Your task to perform on an android device: turn off notifications in google photos Image 0: 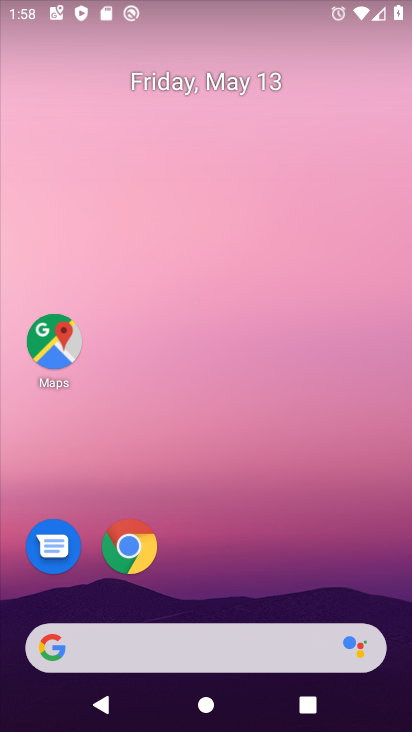
Step 0: drag from (289, 561) to (301, 121)
Your task to perform on an android device: turn off notifications in google photos Image 1: 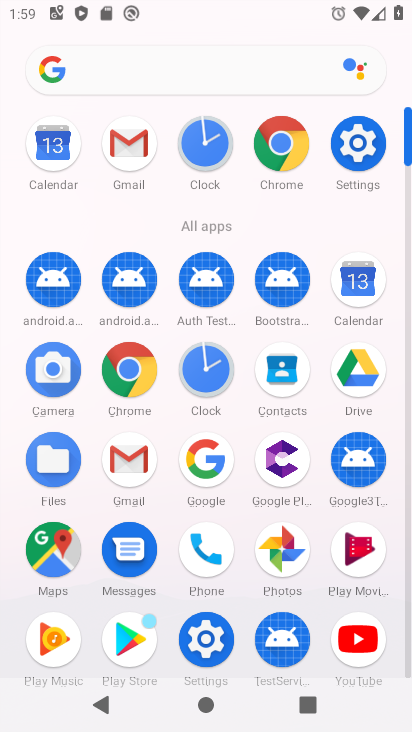
Step 1: click (293, 551)
Your task to perform on an android device: turn off notifications in google photos Image 2: 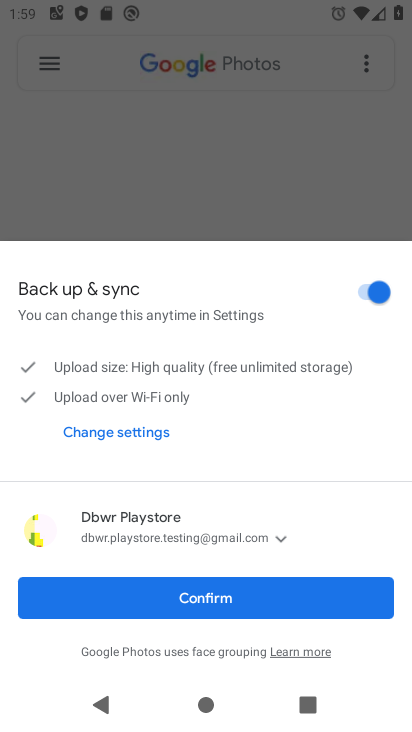
Step 2: click (264, 584)
Your task to perform on an android device: turn off notifications in google photos Image 3: 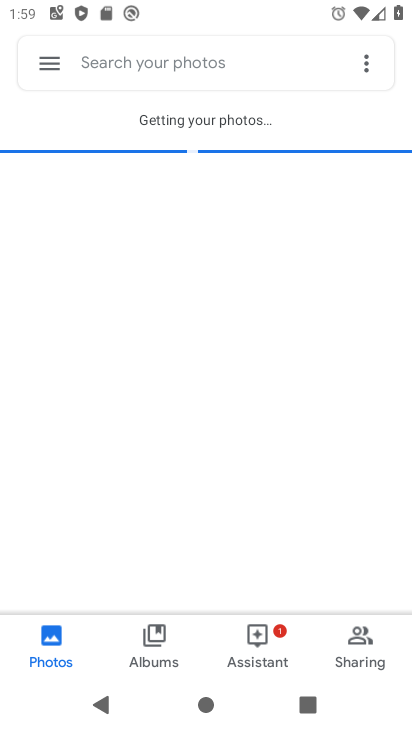
Step 3: click (373, 57)
Your task to perform on an android device: turn off notifications in google photos Image 4: 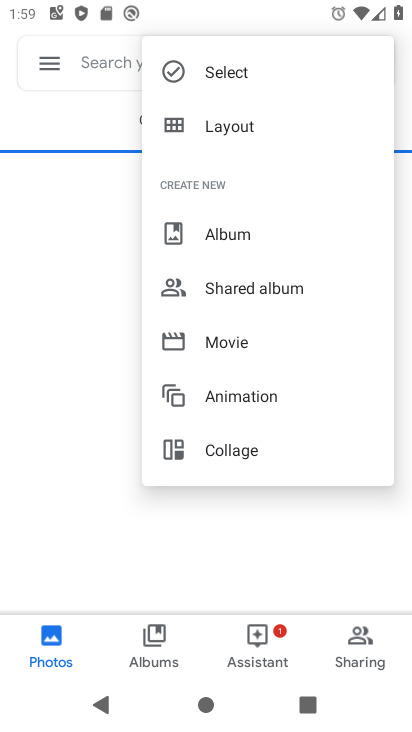
Step 4: click (59, 62)
Your task to perform on an android device: turn off notifications in google photos Image 5: 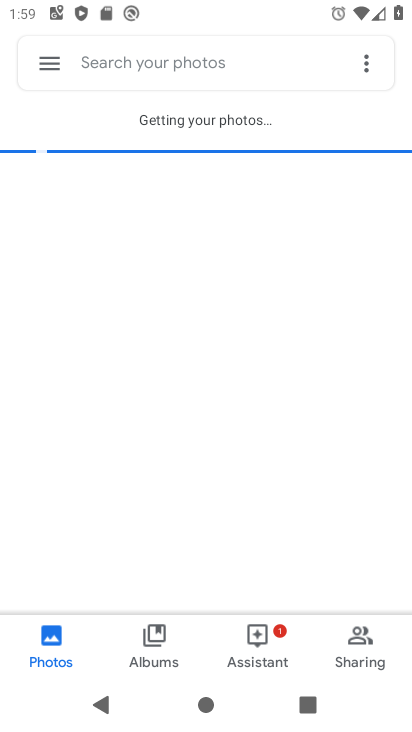
Step 5: click (52, 49)
Your task to perform on an android device: turn off notifications in google photos Image 6: 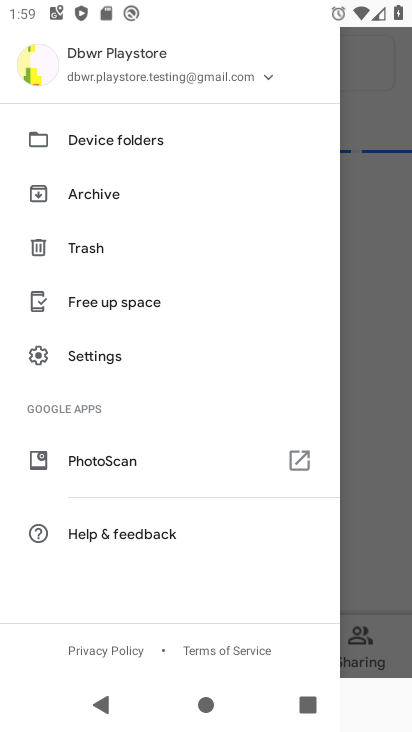
Step 6: click (108, 354)
Your task to perform on an android device: turn off notifications in google photos Image 7: 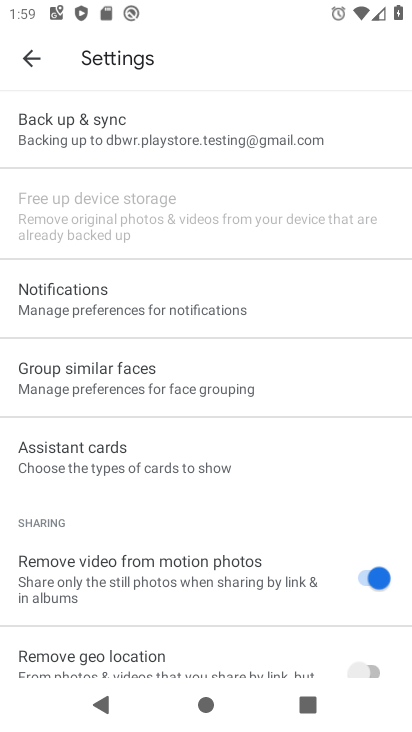
Step 7: click (138, 287)
Your task to perform on an android device: turn off notifications in google photos Image 8: 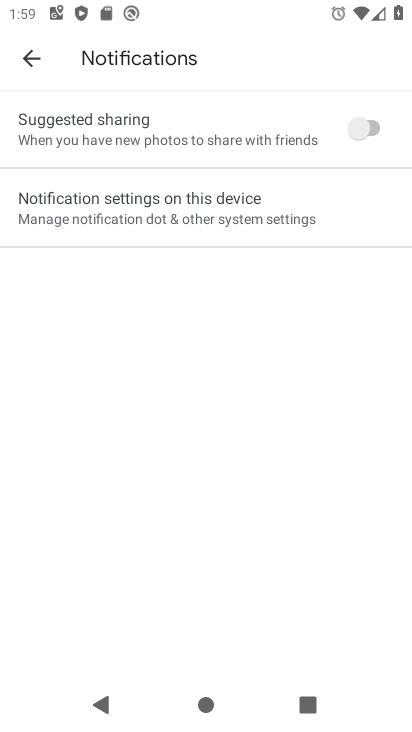
Step 8: click (194, 210)
Your task to perform on an android device: turn off notifications in google photos Image 9: 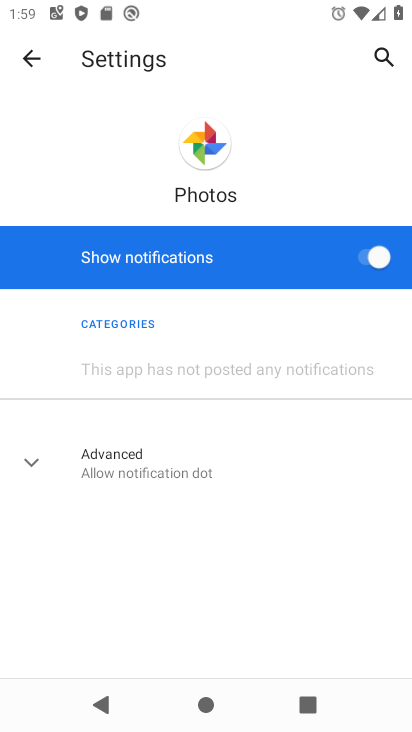
Step 9: click (366, 263)
Your task to perform on an android device: turn off notifications in google photos Image 10: 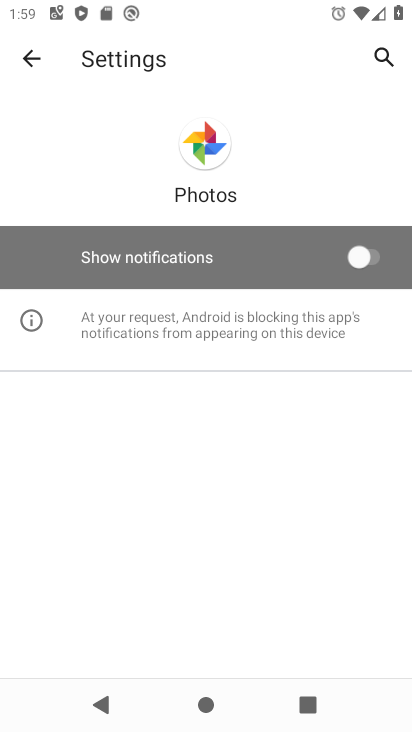
Step 10: task complete